Your task to perform on an android device: find photos in the google photos app Image 0: 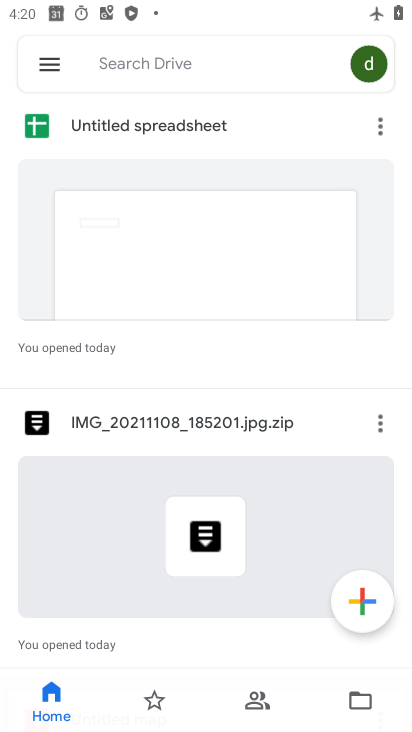
Step 0: press home button
Your task to perform on an android device: find photos in the google photos app Image 1: 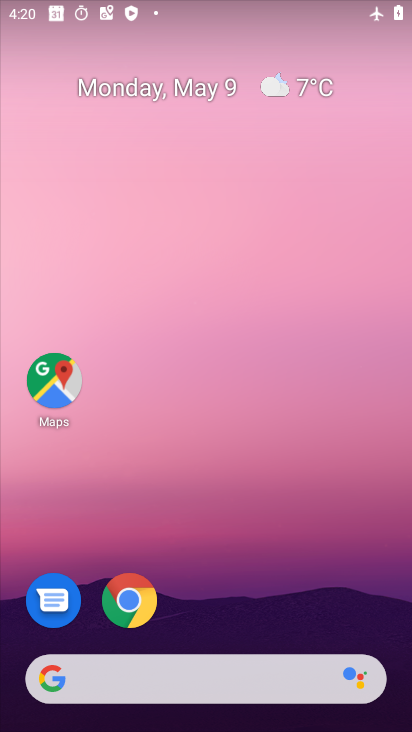
Step 1: drag from (334, 607) to (261, 202)
Your task to perform on an android device: find photos in the google photos app Image 2: 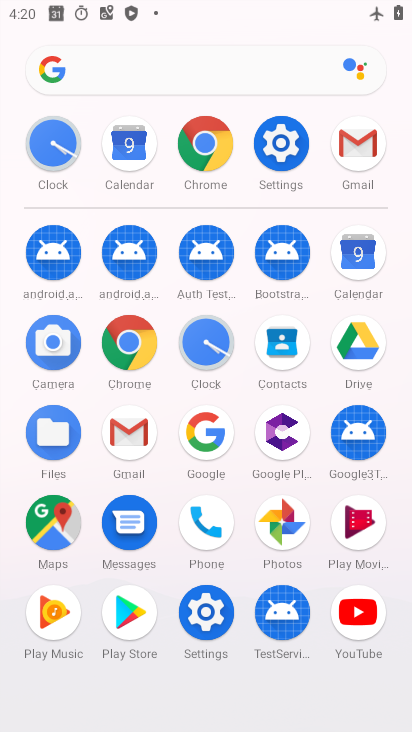
Step 2: click (290, 520)
Your task to perform on an android device: find photos in the google photos app Image 3: 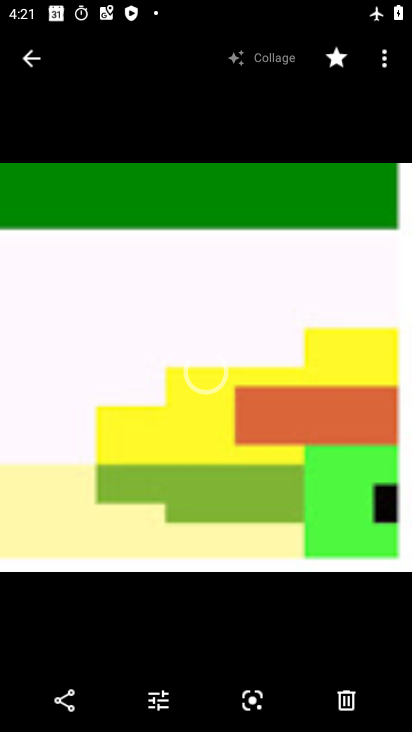
Step 3: task complete